Your task to perform on an android device: choose inbox layout in the gmail app Image 0: 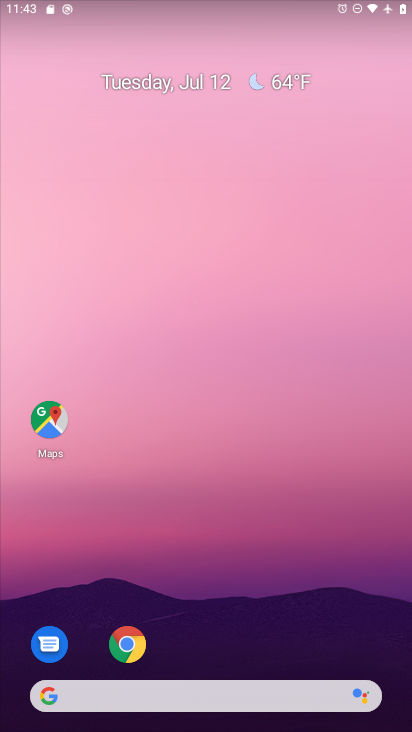
Step 0: drag from (304, 646) to (364, 73)
Your task to perform on an android device: choose inbox layout in the gmail app Image 1: 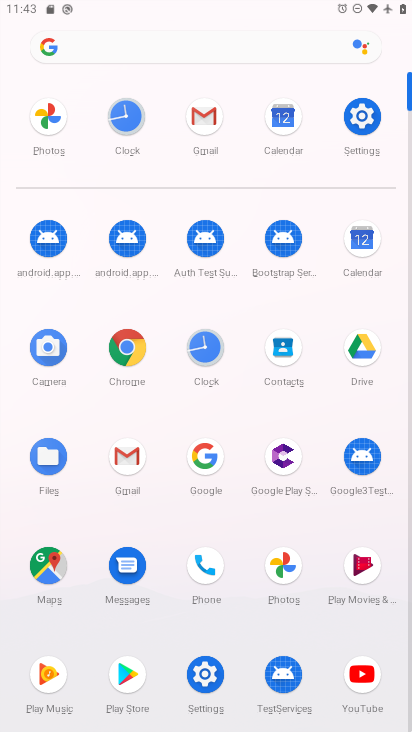
Step 1: click (215, 120)
Your task to perform on an android device: choose inbox layout in the gmail app Image 2: 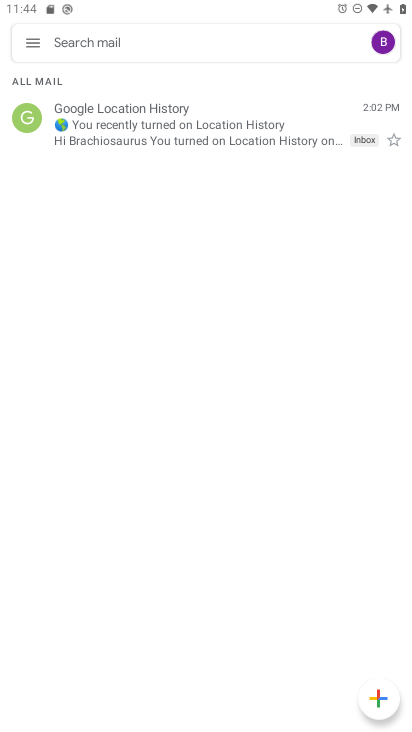
Step 2: click (41, 51)
Your task to perform on an android device: choose inbox layout in the gmail app Image 3: 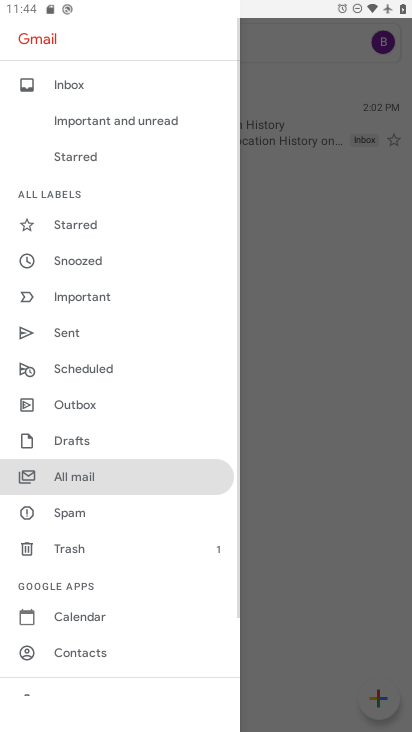
Step 3: click (56, 96)
Your task to perform on an android device: choose inbox layout in the gmail app Image 4: 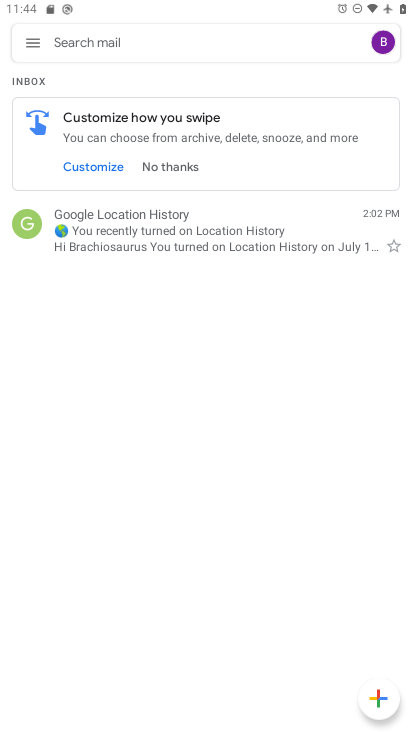
Step 4: task complete